Your task to perform on an android device: Search for seafood restaurants on Google Maps Image 0: 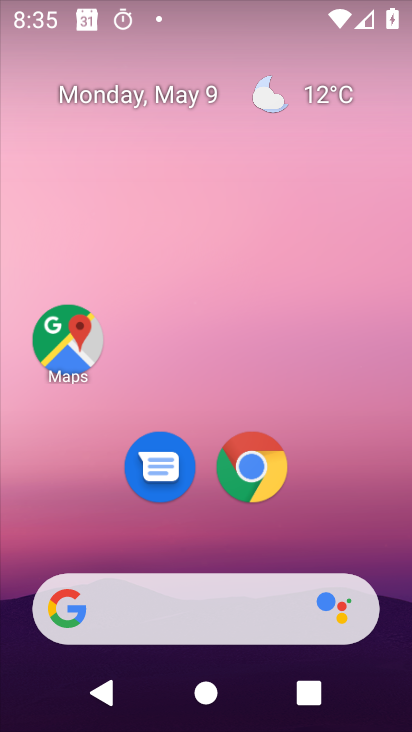
Step 0: click (73, 346)
Your task to perform on an android device: Search for seafood restaurants on Google Maps Image 1: 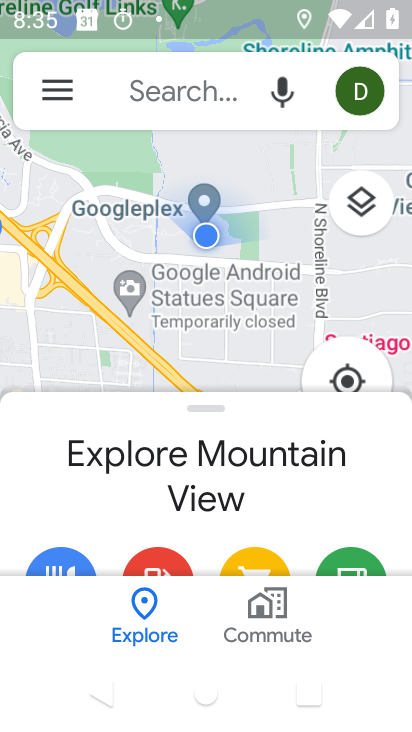
Step 1: click (134, 94)
Your task to perform on an android device: Search for seafood restaurants on Google Maps Image 2: 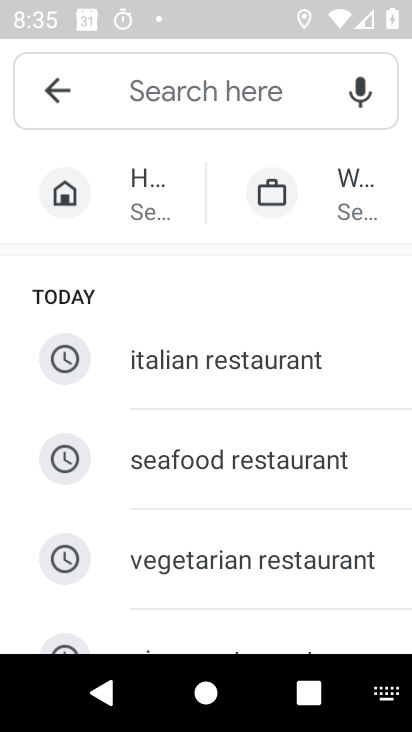
Step 2: type "seafood restaurant"
Your task to perform on an android device: Search for seafood restaurants on Google Maps Image 3: 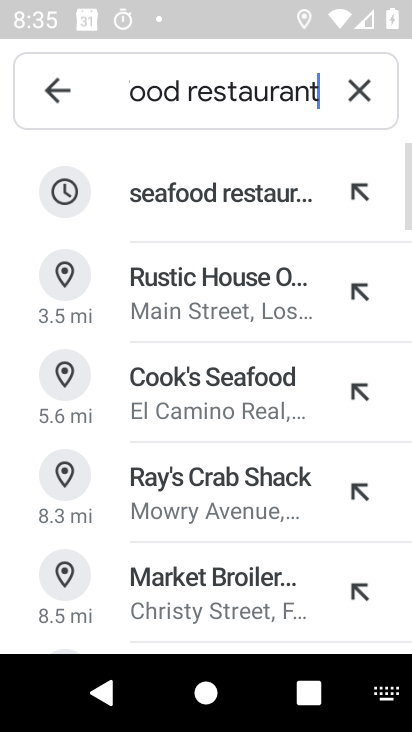
Step 3: click (278, 188)
Your task to perform on an android device: Search for seafood restaurants on Google Maps Image 4: 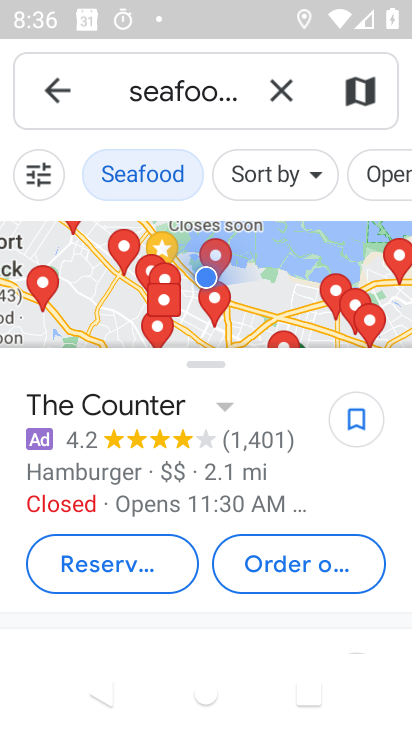
Step 4: task complete